Your task to perform on an android device: Open Chrome and go to settings Image 0: 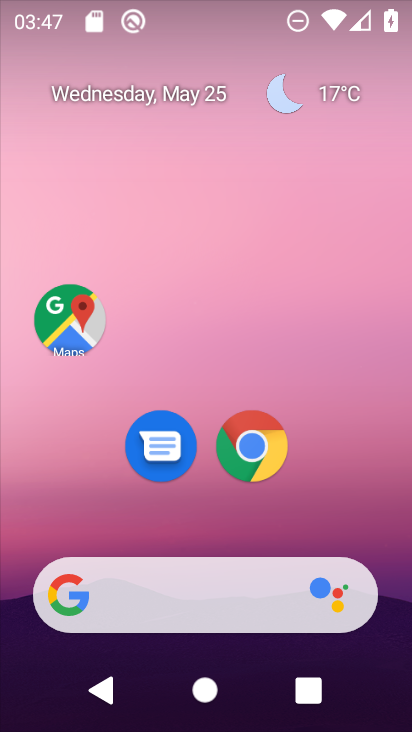
Step 0: click (269, 456)
Your task to perform on an android device: Open Chrome and go to settings Image 1: 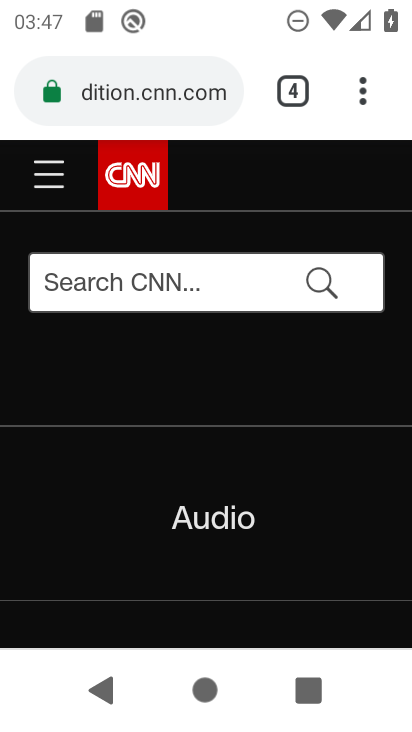
Step 1: task complete